Your task to perform on an android device: Search for Mexican restaurants on Maps Image 0: 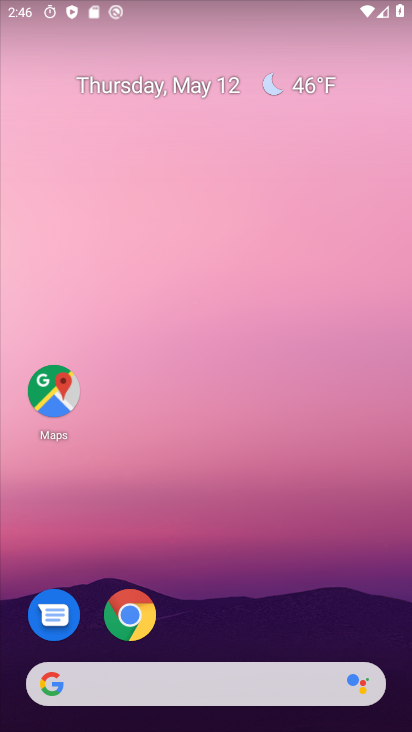
Step 0: click (52, 401)
Your task to perform on an android device: Search for Mexican restaurants on Maps Image 1: 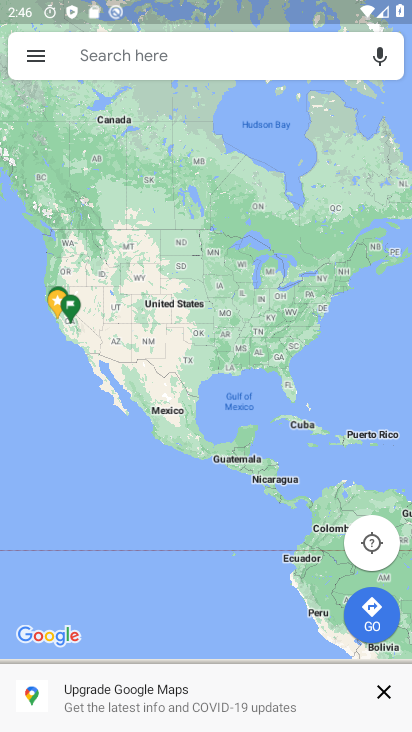
Step 1: click (164, 49)
Your task to perform on an android device: Search for Mexican restaurants on Maps Image 2: 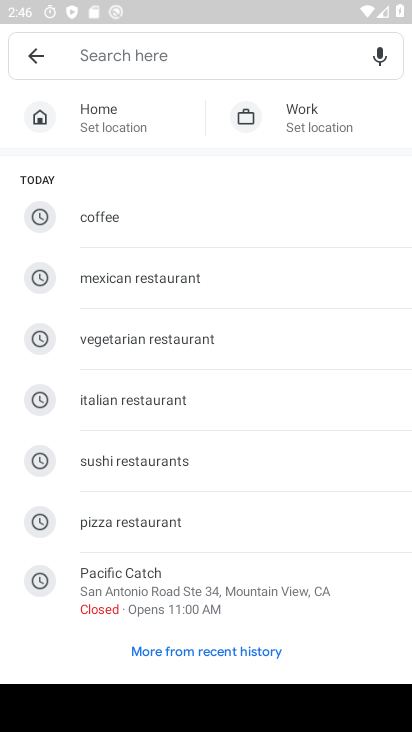
Step 2: click (170, 278)
Your task to perform on an android device: Search for Mexican restaurants on Maps Image 3: 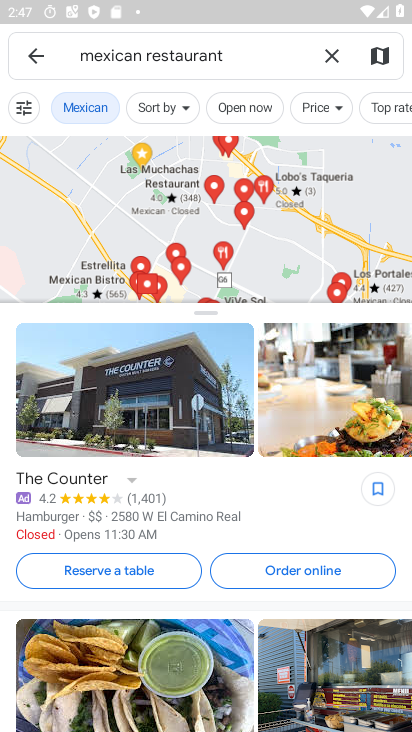
Step 3: task complete